Your task to perform on an android device: toggle priority inbox in the gmail app Image 0: 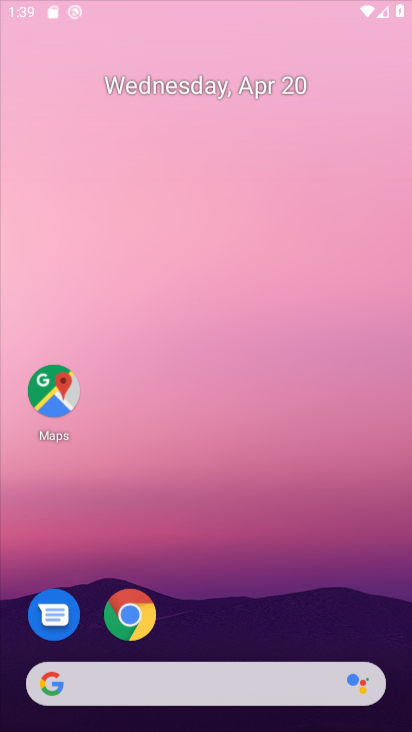
Step 0: click (246, 56)
Your task to perform on an android device: toggle priority inbox in the gmail app Image 1: 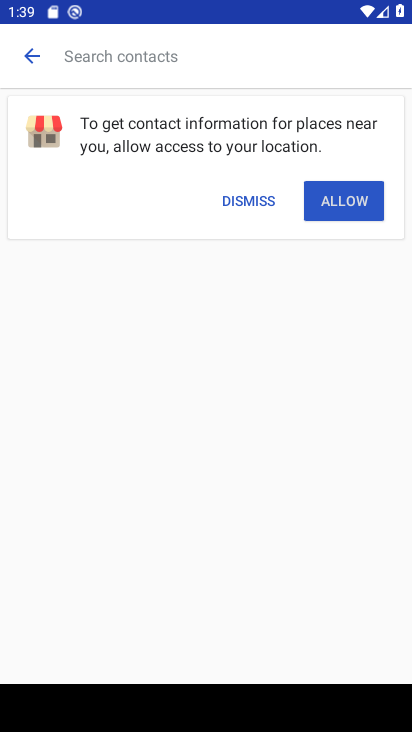
Step 1: press home button
Your task to perform on an android device: toggle priority inbox in the gmail app Image 2: 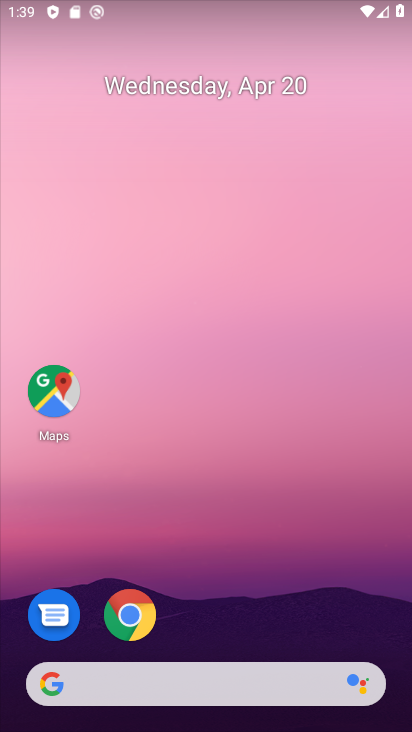
Step 2: drag from (243, 611) to (239, 54)
Your task to perform on an android device: toggle priority inbox in the gmail app Image 3: 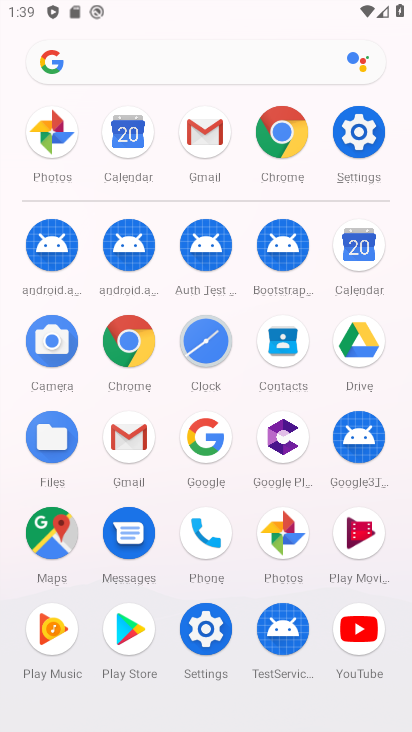
Step 3: click (201, 141)
Your task to perform on an android device: toggle priority inbox in the gmail app Image 4: 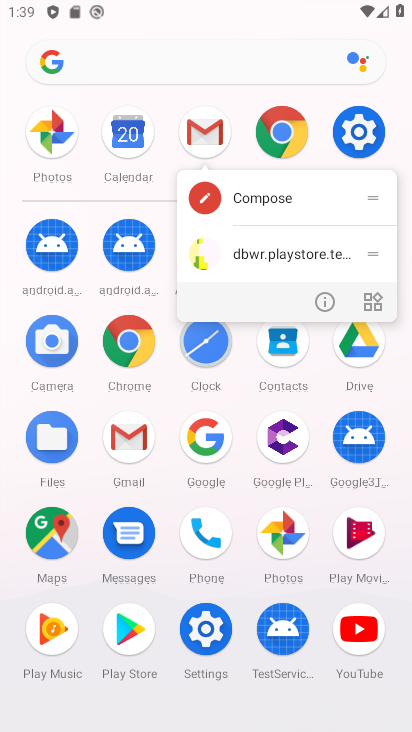
Step 4: click (202, 141)
Your task to perform on an android device: toggle priority inbox in the gmail app Image 5: 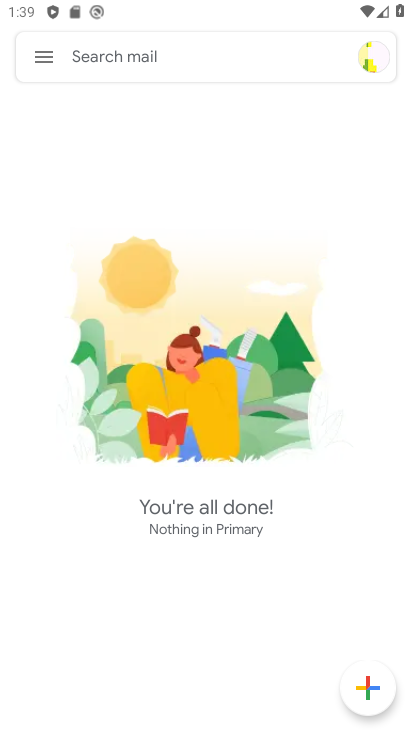
Step 5: click (36, 62)
Your task to perform on an android device: toggle priority inbox in the gmail app Image 6: 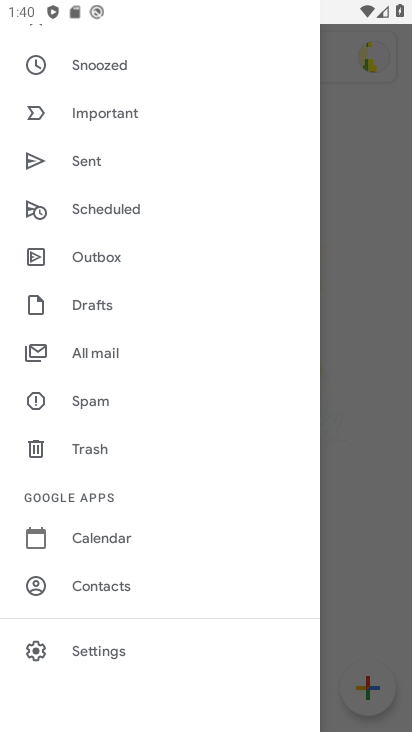
Step 6: click (72, 647)
Your task to perform on an android device: toggle priority inbox in the gmail app Image 7: 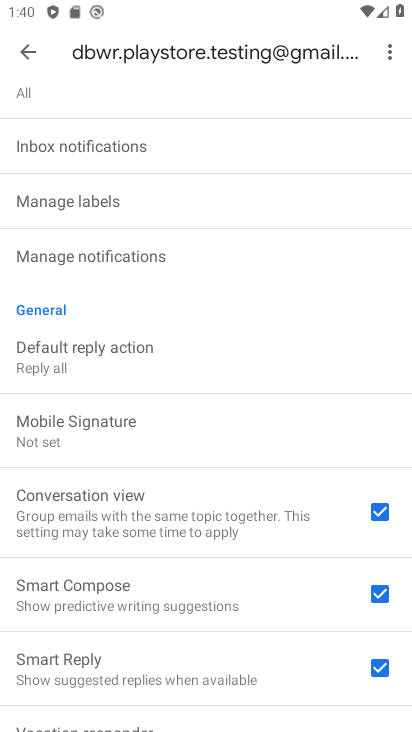
Step 7: drag from (67, 487) to (96, 587)
Your task to perform on an android device: toggle priority inbox in the gmail app Image 8: 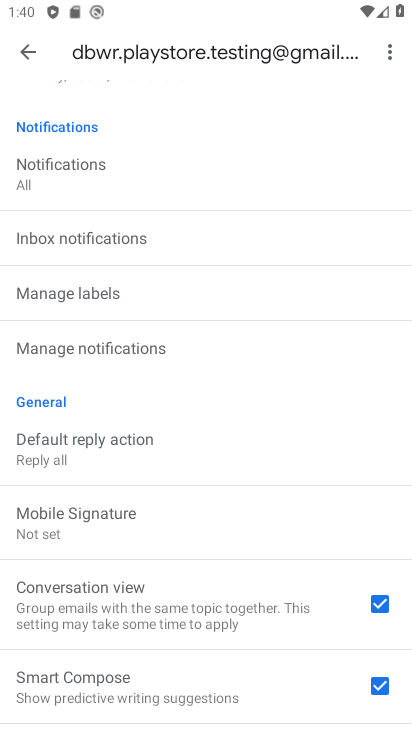
Step 8: drag from (86, 475) to (99, 561)
Your task to perform on an android device: toggle priority inbox in the gmail app Image 9: 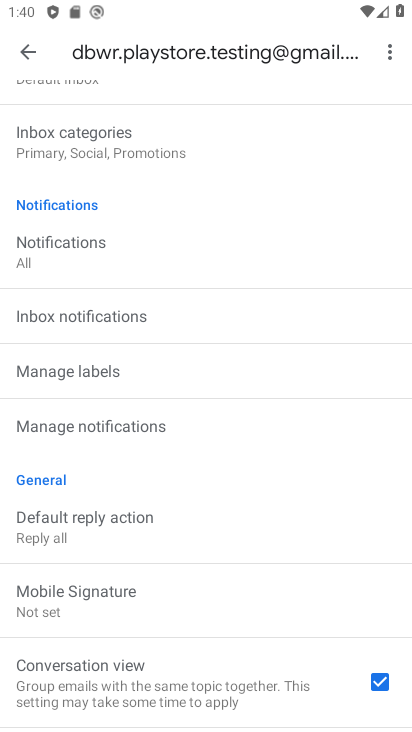
Step 9: drag from (116, 448) to (118, 541)
Your task to perform on an android device: toggle priority inbox in the gmail app Image 10: 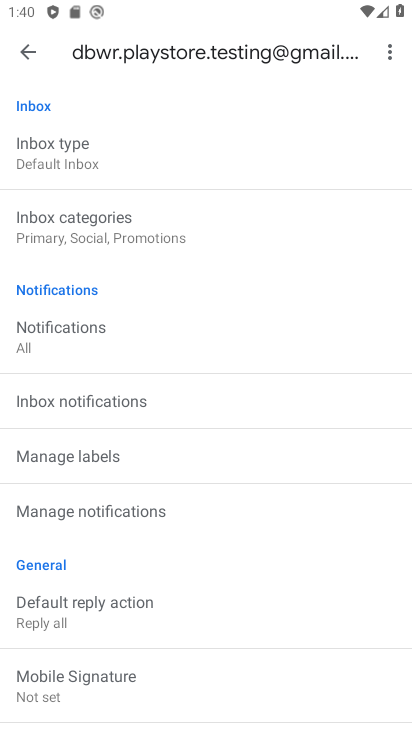
Step 10: click (83, 170)
Your task to perform on an android device: toggle priority inbox in the gmail app Image 11: 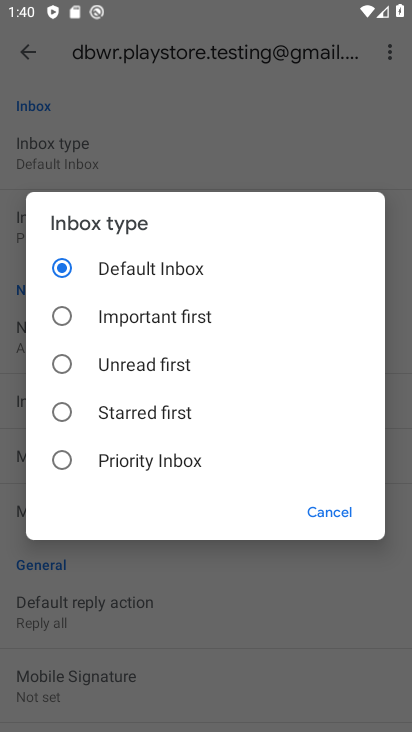
Step 11: click (144, 453)
Your task to perform on an android device: toggle priority inbox in the gmail app Image 12: 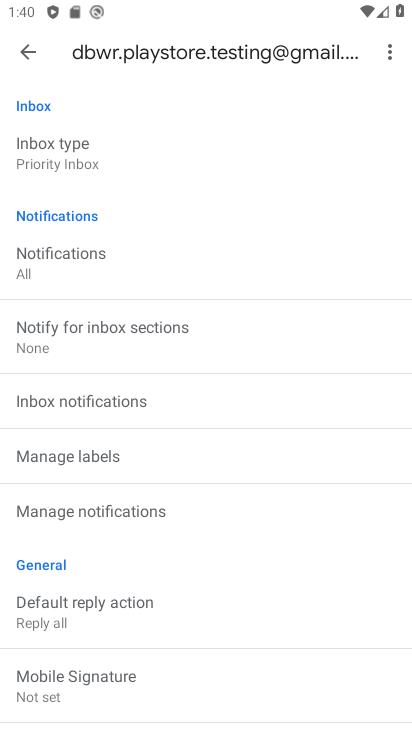
Step 12: task complete